Your task to perform on an android device: toggle show notifications on the lock screen Image 0: 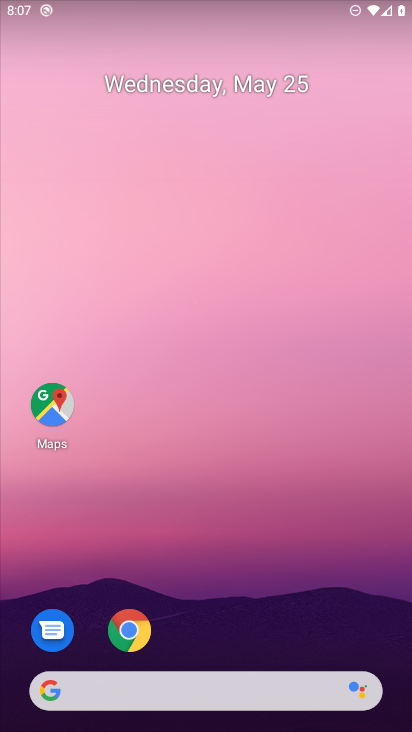
Step 0: drag from (193, 645) to (244, 417)
Your task to perform on an android device: toggle show notifications on the lock screen Image 1: 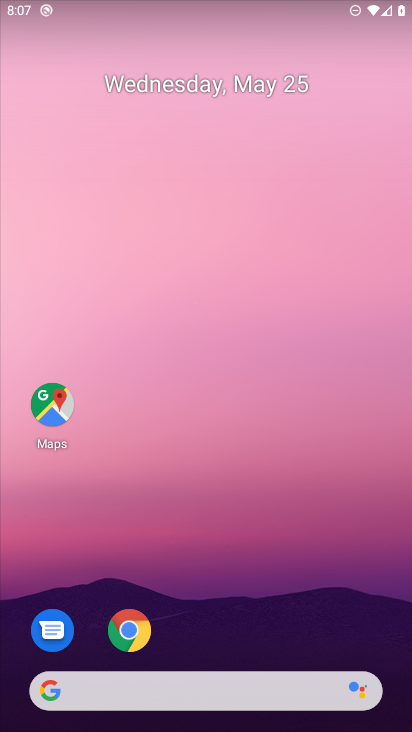
Step 1: drag from (238, 679) to (301, 337)
Your task to perform on an android device: toggle show notifications on the lock screen Image 2: 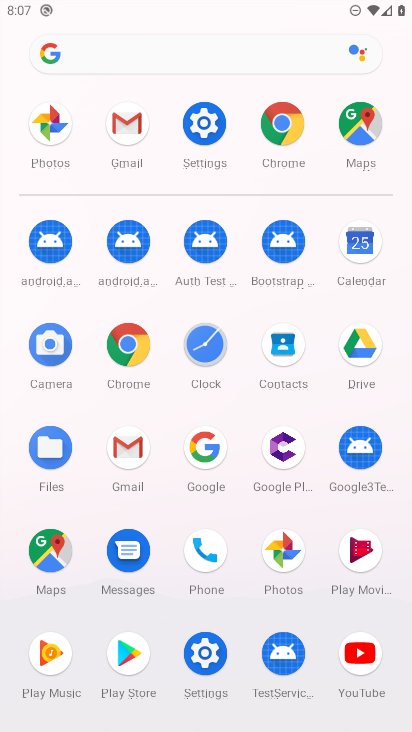
Step 2: click (198, 122)
Your task to perform on an android device: toggle show notifications on the lock screen Image 3: 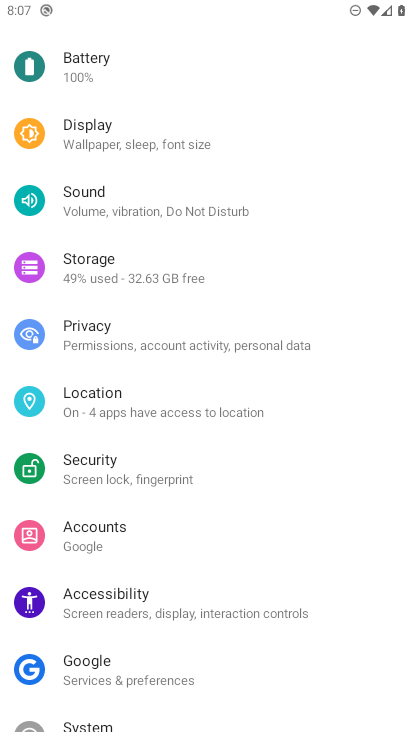
Step 3: click (122, 343)
Your task to perform on an android device: toggle show notifications on the lock screen Image 4: 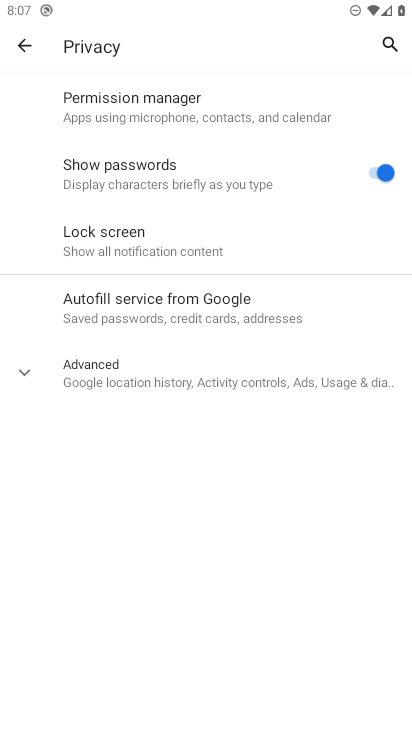
Step 4: click (122, 375)
Your task to perform on an android device: toggle show notifications on the lock screen Image 5: 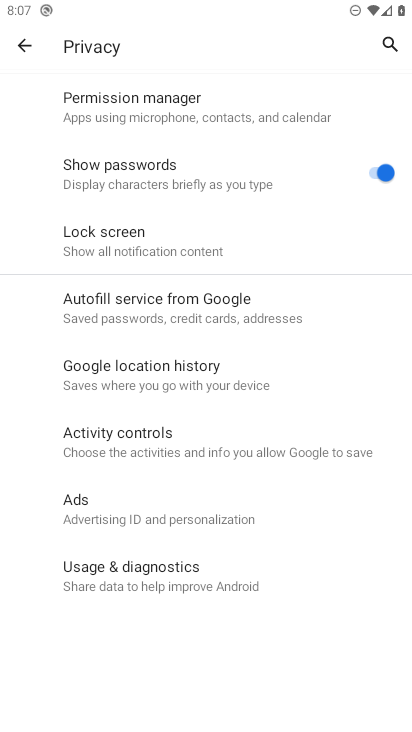
Step 5: click (138, 239)
Your task to perform on an android device: toggle show notifications on the lock screen Image 6: 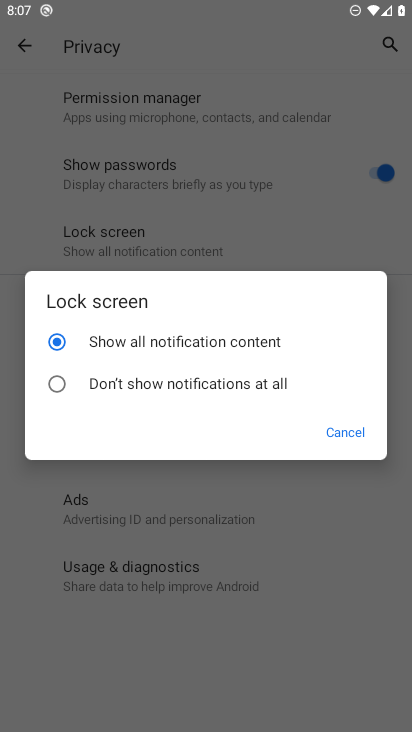
Step 6: click (212, 381)
Your task to perform on an android device: toggle show notifications on the lock screen Image 7: 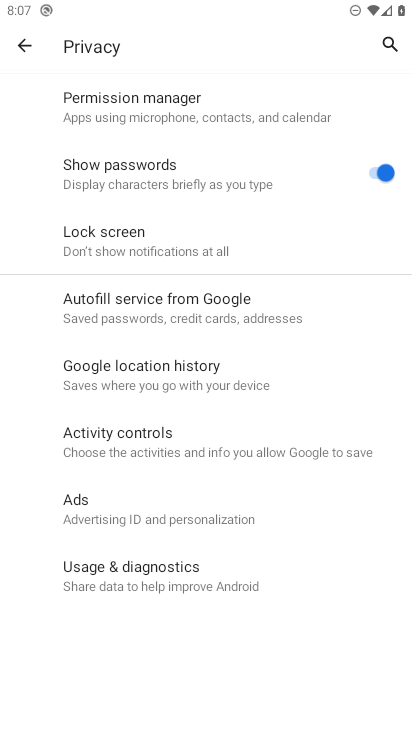
Step 7: task complete